Your task to perform on an android device: Open the calendar app, open the side menu, and click the "Day" option Image 0: 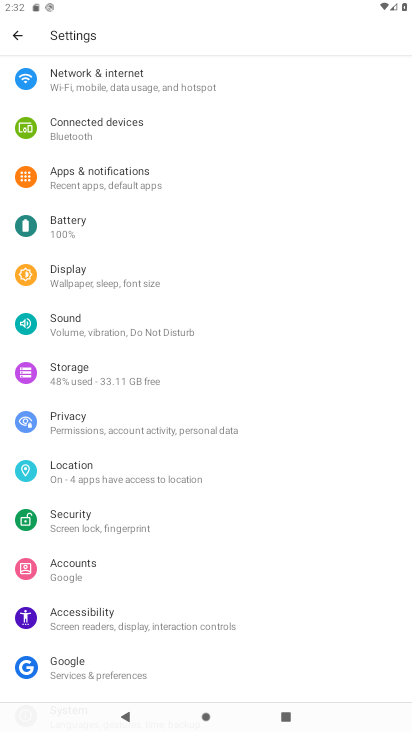
Step 0: press home button
Your task to perform on an android device: Open the calendar app, open the side menu, and click the "Day" option Image 1: 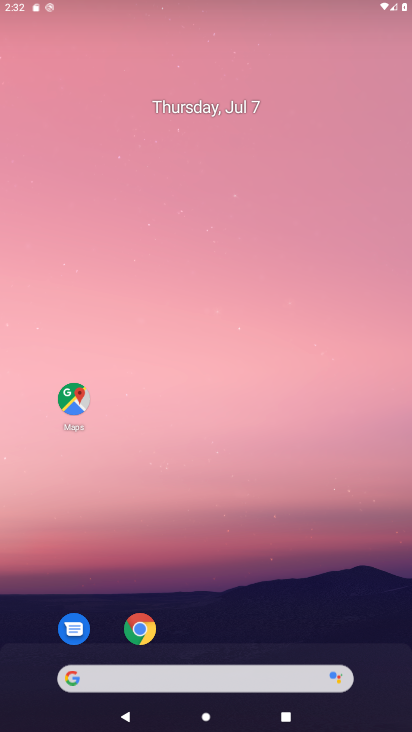
Step 1: drag from (283, 508) to (226, 13)
Your task to perform on an android device: Open the calendar app, open the side menu, and click the "Day" option Image 2: 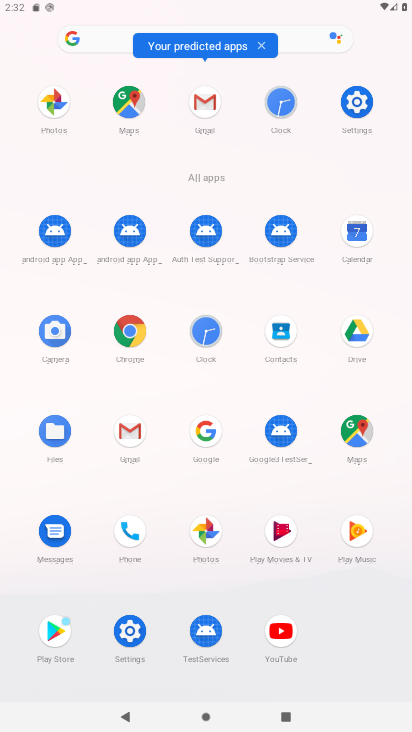
Step 2: click (352, 238)
Your task to perform on an android device: Open the calendar app, open the side menu, and click the "Day" option Image 3: 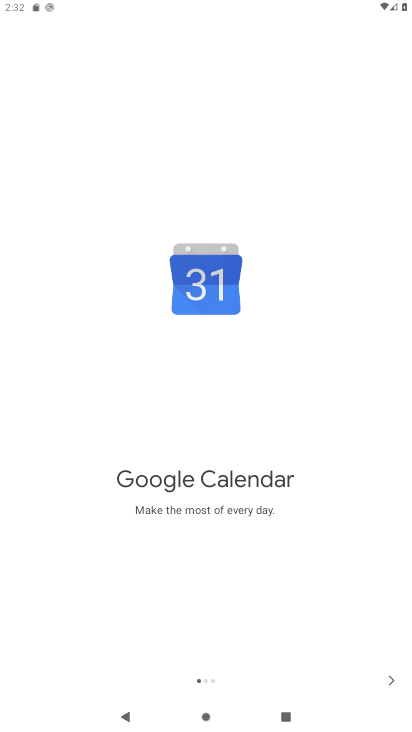
Step 3: click (390, 683)
Your task to perform on an android device: Open the calendar app, open the side menu, and click the "Day" option Image 4: 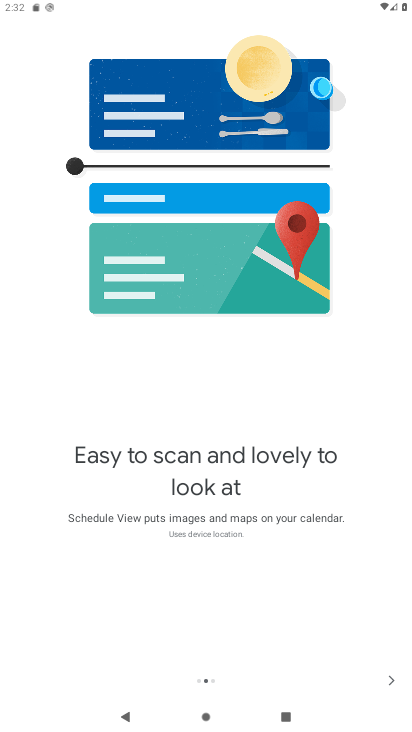
Step 4: click (392, 682)
Your task to perform on an android device: Open the calendar app, open the side menu, and click the "Day" option Image 5: 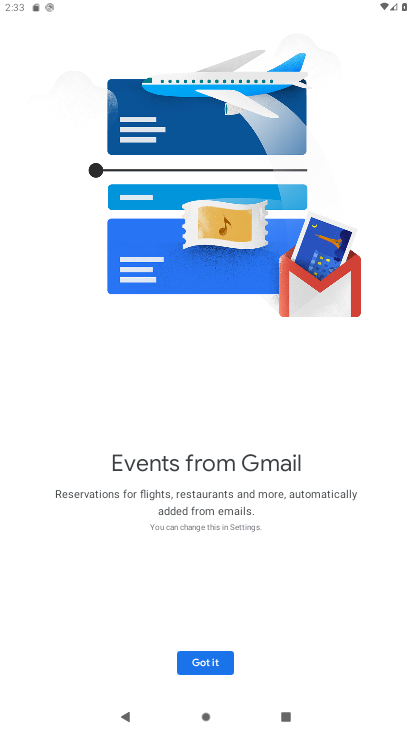
Step 5: click (203, 673)
Your task to perform on an android device: Open the calendar app, open the side menu, and click the "Day" option Image 6: 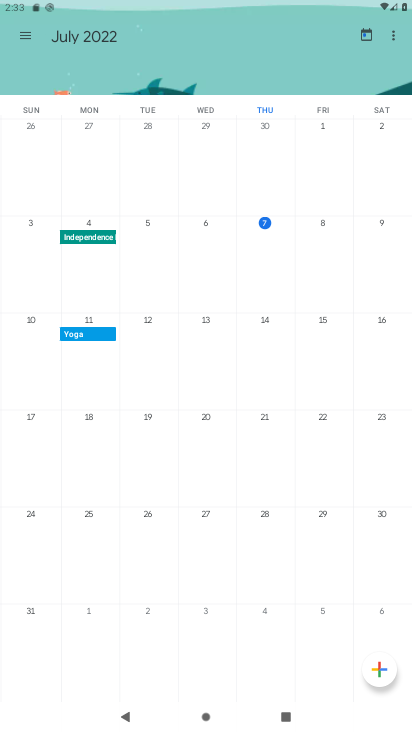
Step 6: click (24, 46)
Your task to perform on an android device: Open the calendar app, open the side menu, and click the "Day" option Image 7: 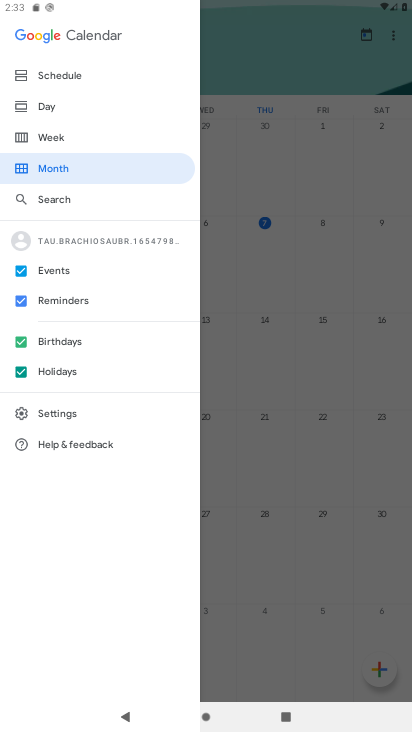
Step 7: click (52, 107)
Your task to perform on an android device: Open the calendar app, open the side menu, and click the "Day" option Image 8: 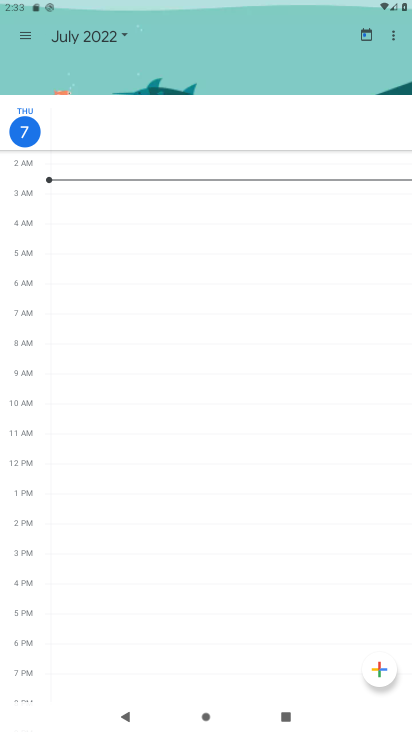
Step 8: task complete